Your task to perform on an android device: How much does a 3 bedroom apartment rent for in Philadelphia? Image 0: 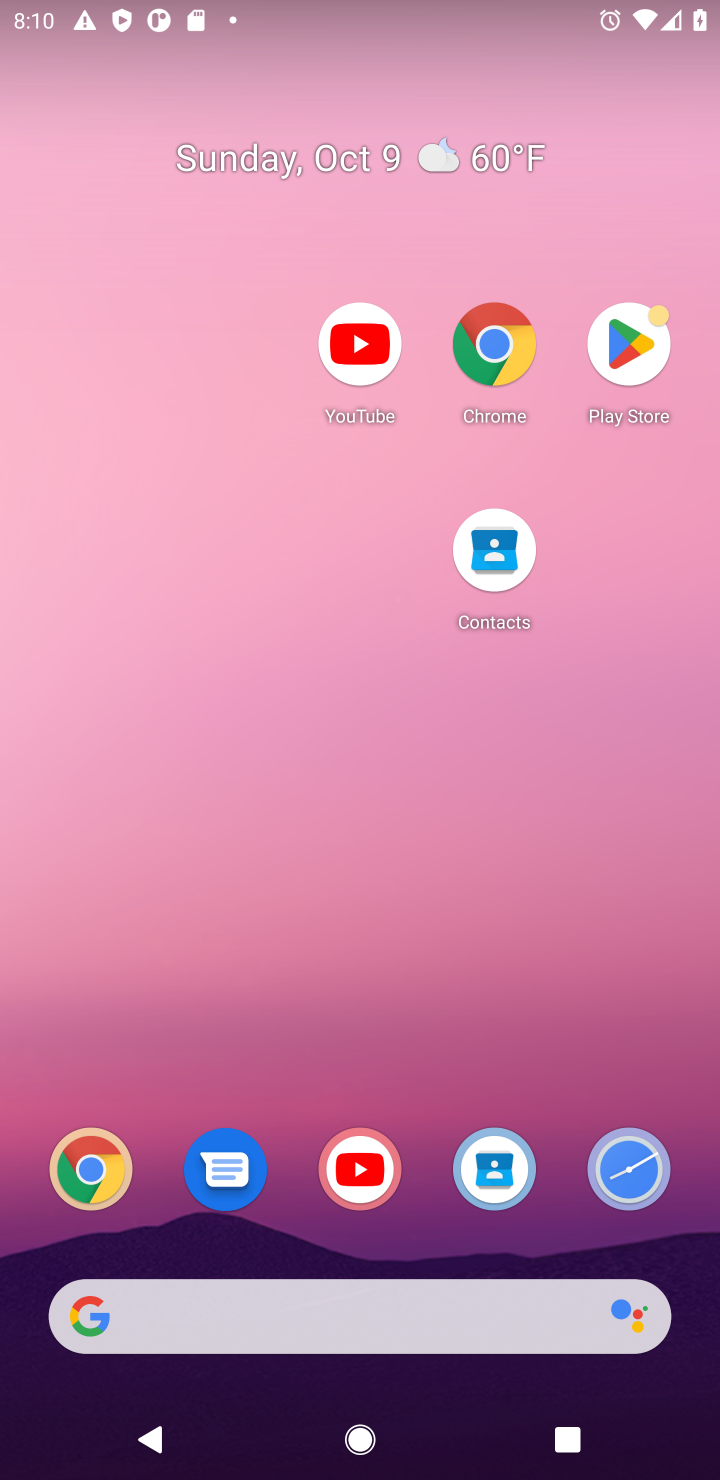
Step 0: drag from (401, 1277) to (320, 65)
Your task to perform on an android device: How much does a 3 bedroom apartment rent for in Philadelphia? Image 1: 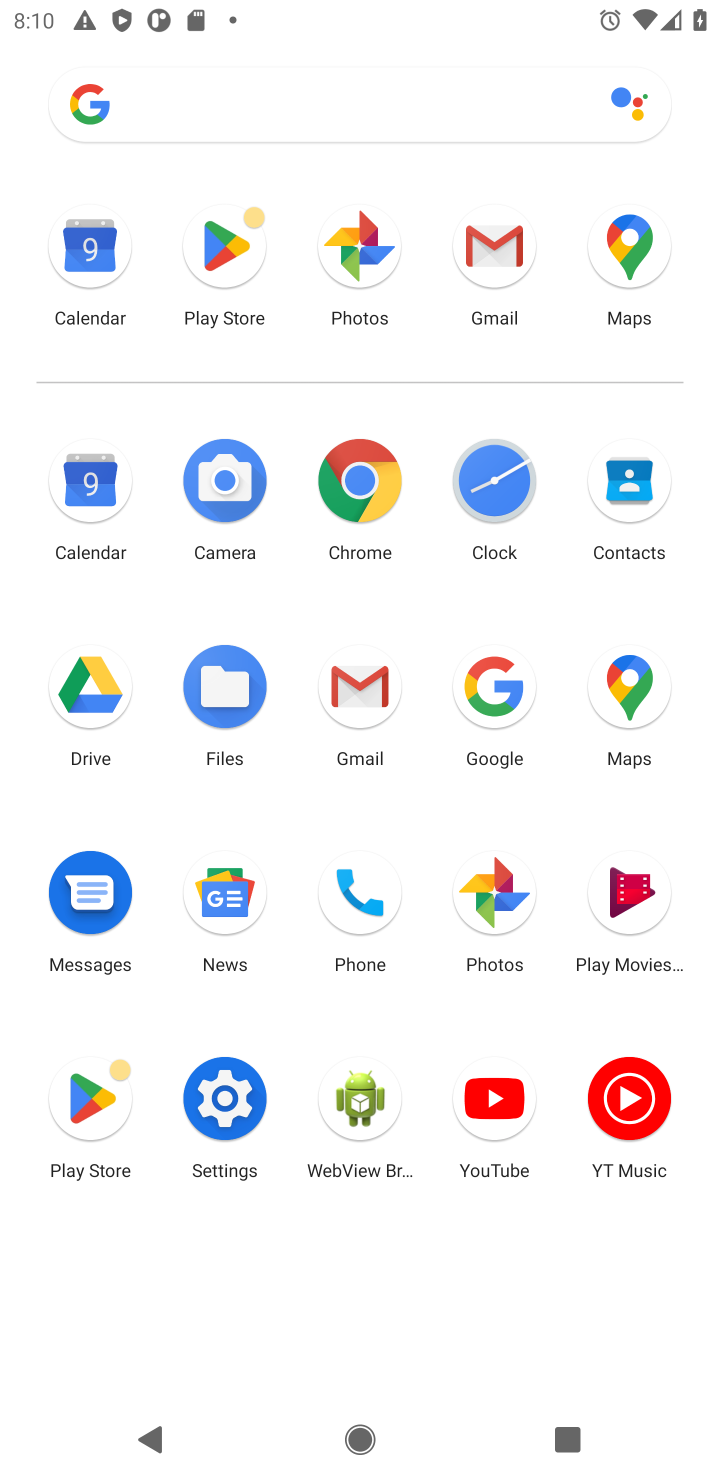
Step 1: click (366, 484)
Your task to perform on an android device: How much does a 3 bedroom apartment rent for in Philadelphia? Image 2: 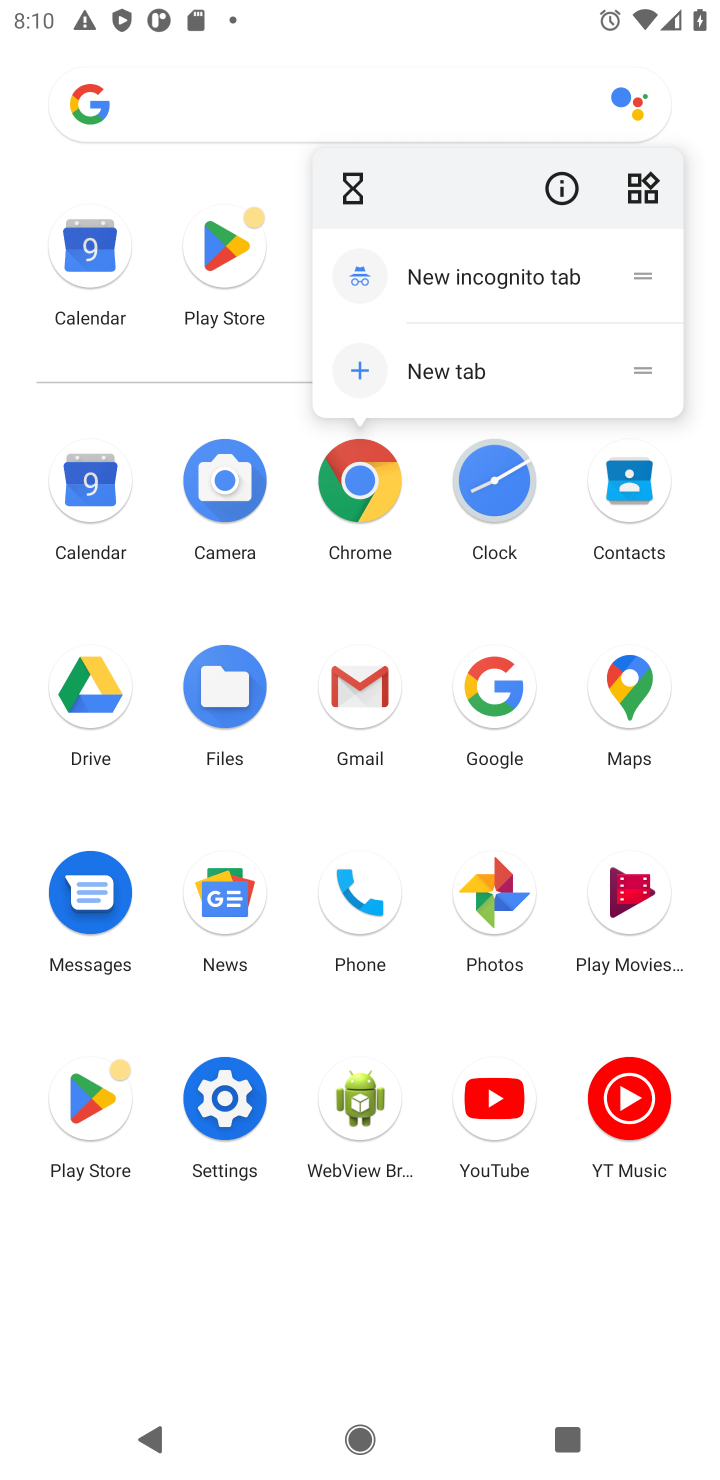
Step 2: click (366, 484)
Your task to perform on an android device: How much does a 3 bedroom apartment rent for in Philadelphia? Image 3: 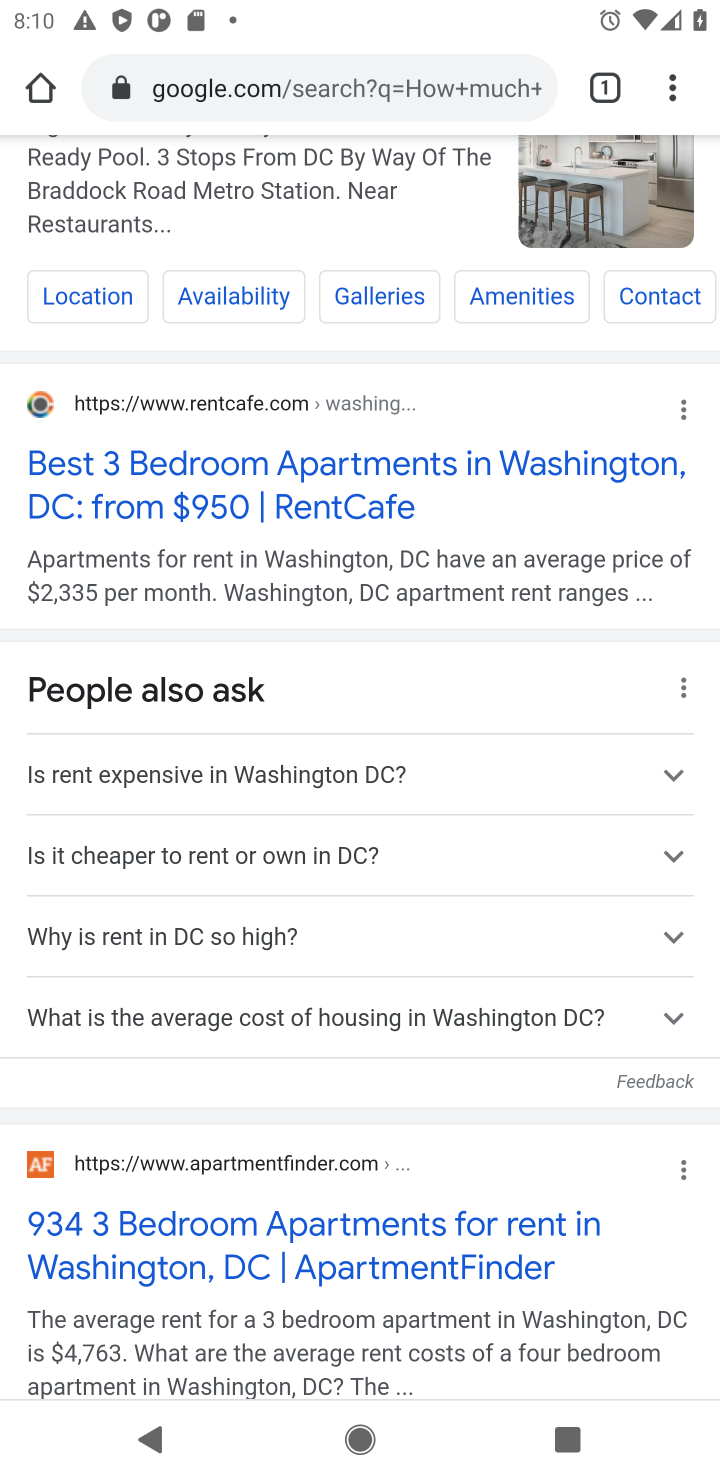
Step 3: click (233, 91)
Your task to perform on an android device: How much does a 3 bedroom apartment rent for in Philadelphia? Image 4: 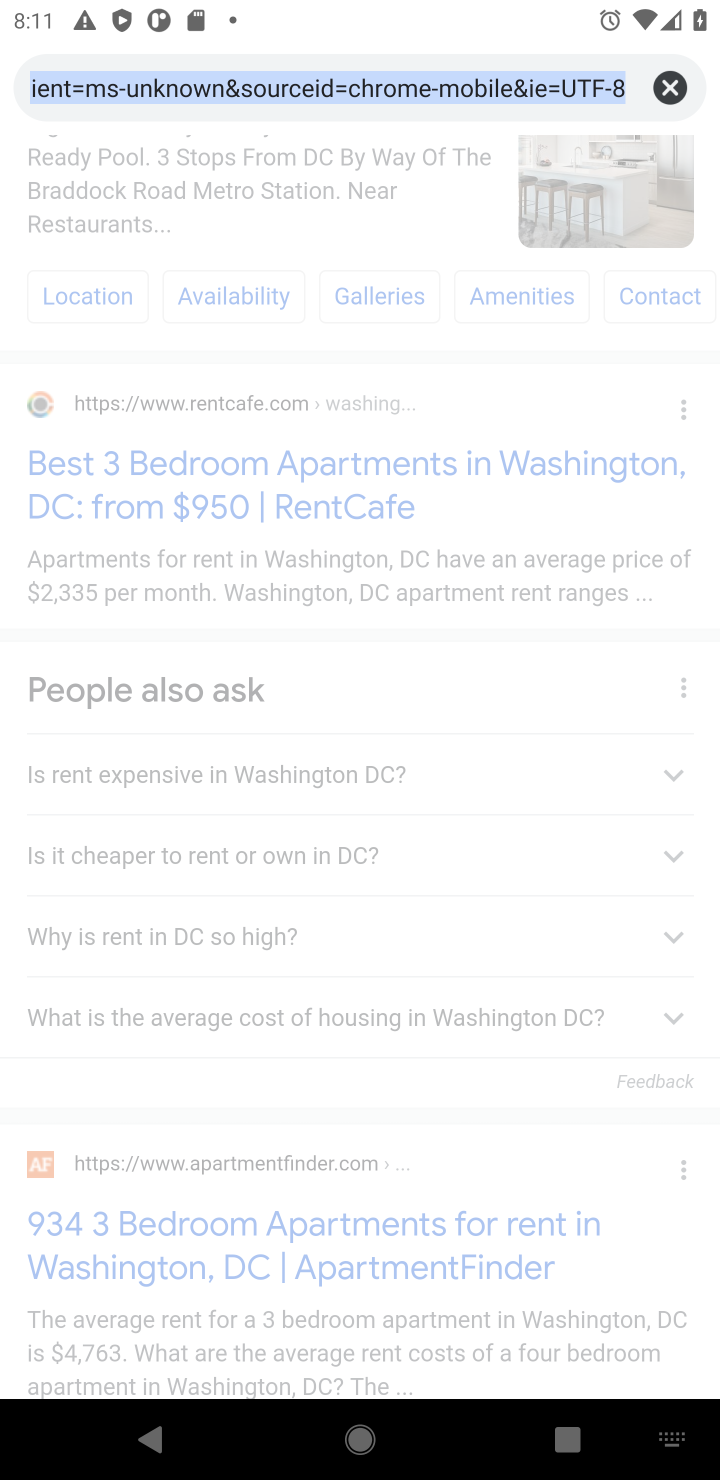
Step 4: type "How much does a 3 bedroom"
Your task to perform on an android device: How much does a 3 bedroom apartment rent for in Philadelphia? Image 5: 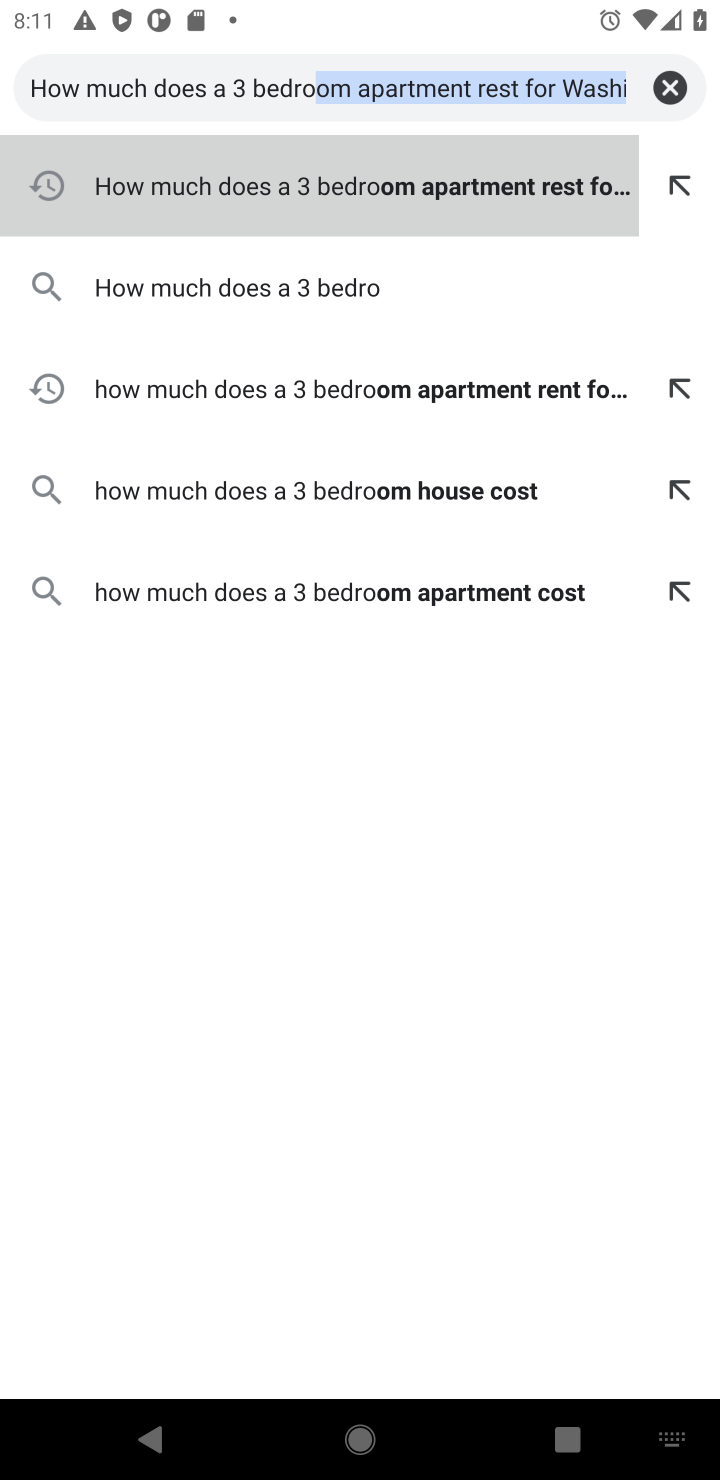
Step 5: type " apartment rent for in Philadelphia?"
Your task to perform on an android device: How much does a 3 bedroom apartment rent for in Philadelphia? Image 6: 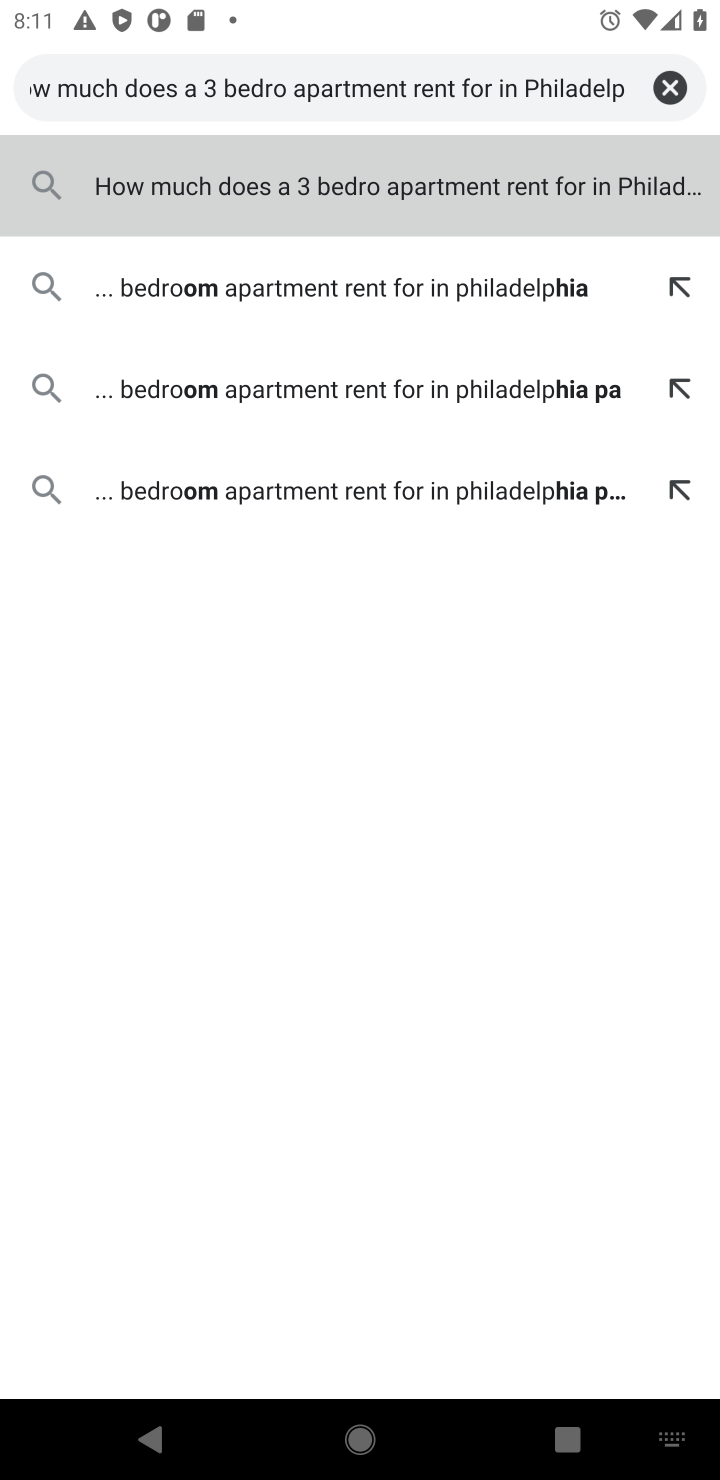
Step 6: click (456, 272)
Your task to perform on an android device: How much does a 3 bedroom apartment rent for in Philadelphia? Image 7: 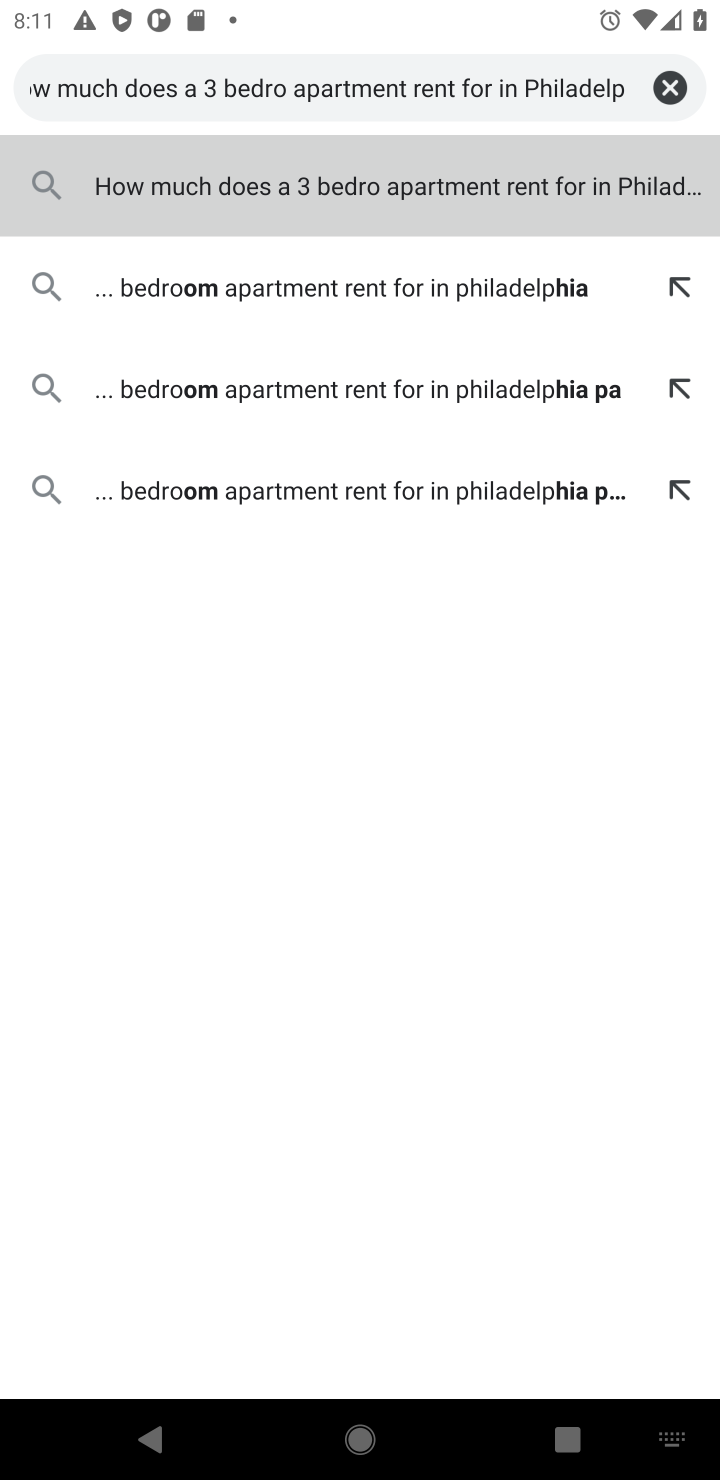
Step 7: click (491, 302)
Your task to perform on an android device: How much does a 3 bedroom apartment rent for in Philadelphia? Image 8: 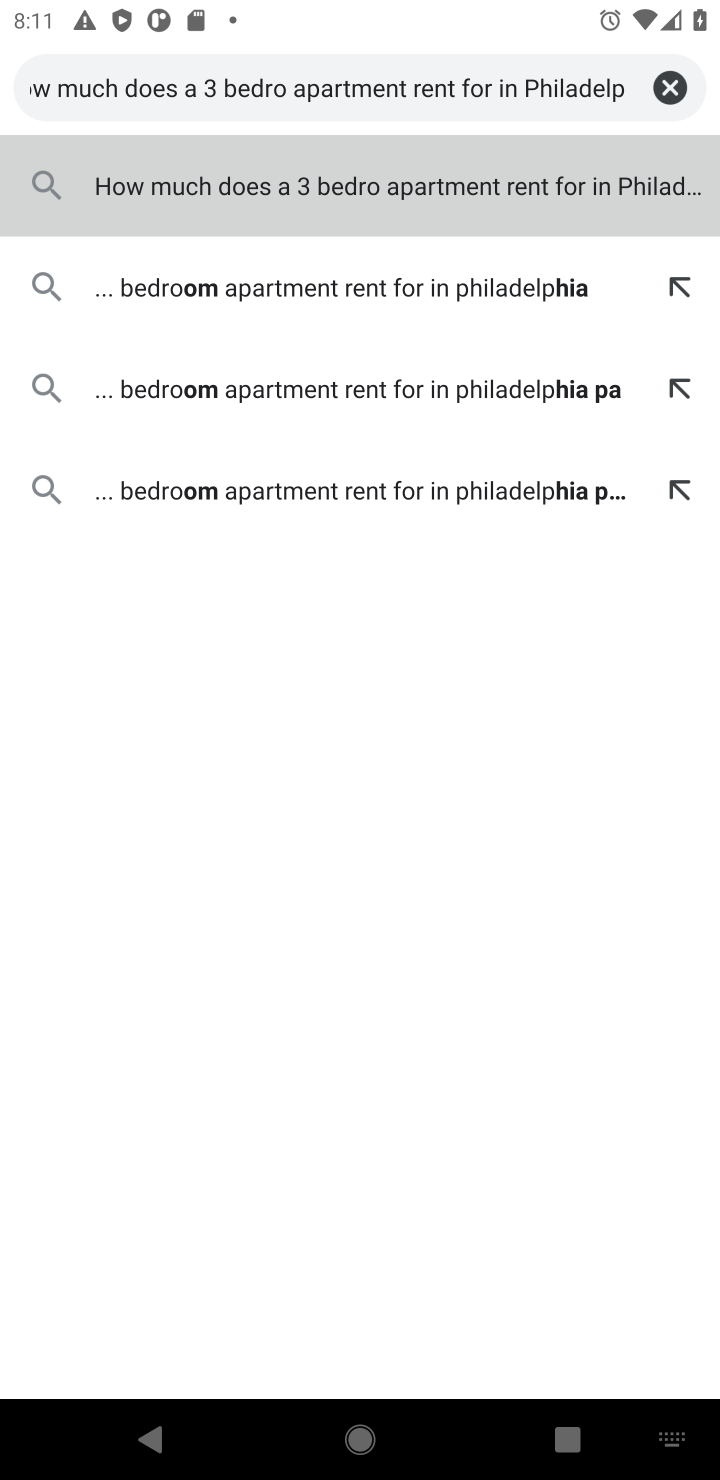
Step 8: click (453, 309)
Your task to perform on an android device: How much does a 3 bedroom apartment rent for in Philadelphia? Image 9: 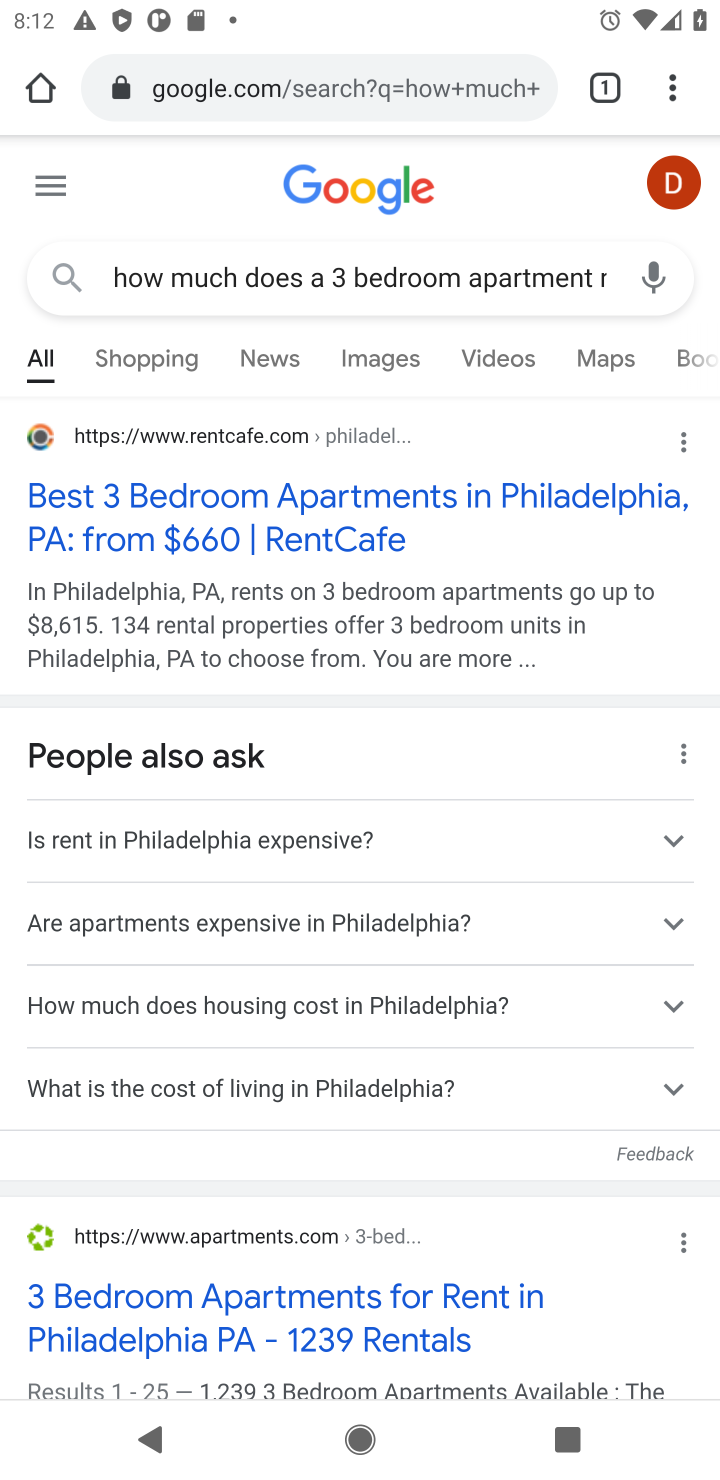
Step 9: task complete